Your task to perform on an android device: toggle sleep mode Image 0: 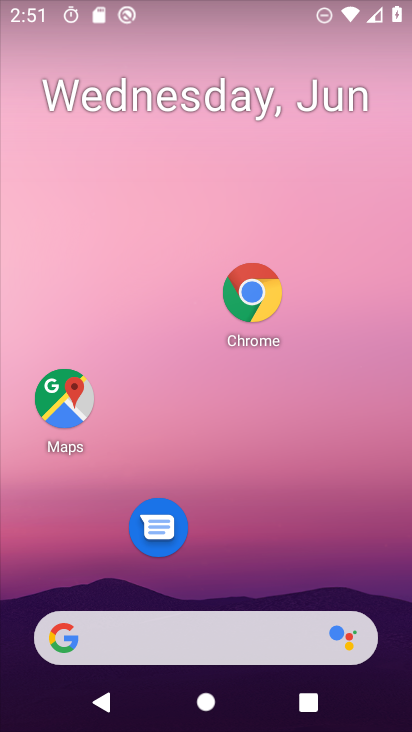
Step 0: drag from (287, 413) to (257, 201)
Your task to perform on an android device: toggle sleep mode Image 1: 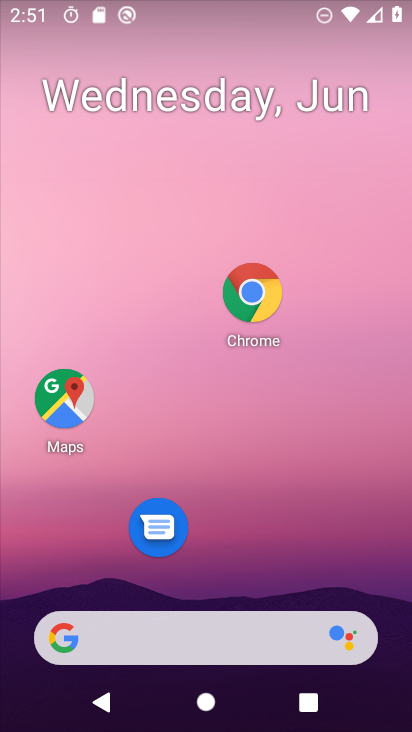
Step 1: drag from (282, 427) to (333, 69)
Your task to perform on an android device: toggle sleep mode Image 2: 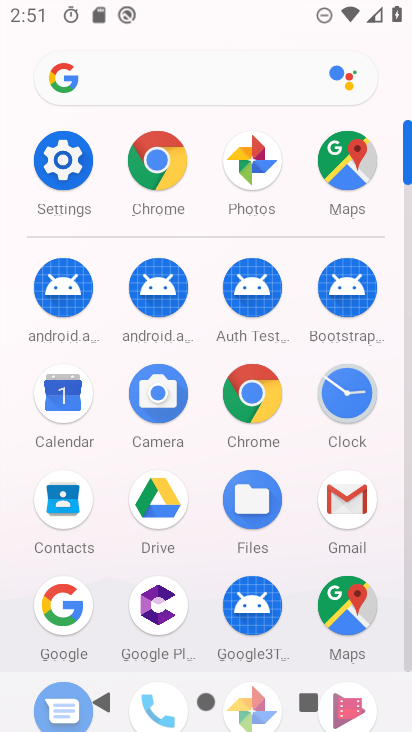
Step 2: click (66, 171)
Your task to perform on an android device: toggle sleep mode Image 3: 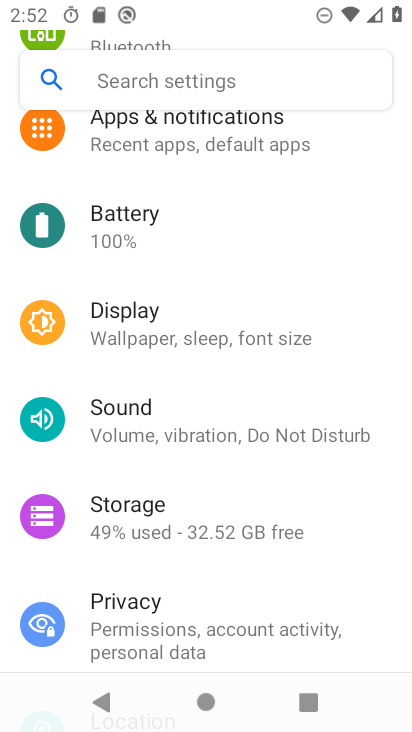
Step 3: click (141, 318)
Your task to perform on an android device: toggle sleep mode Image 4: 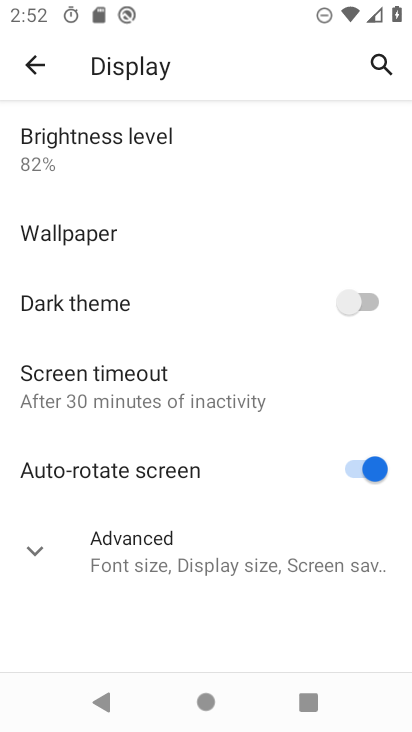
Step 4: click (209, 554)
Your task to perform on an android device: toggle sleep mode Image 5: 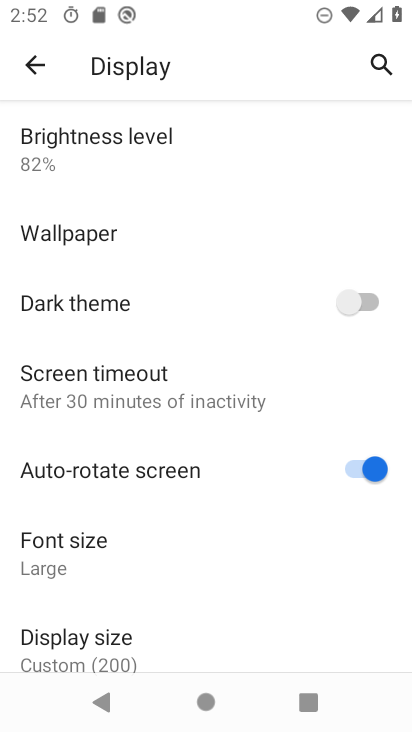
Step 5: task complete